Your task to perform on an android device: clear all cookies in the chrome app Image 0: 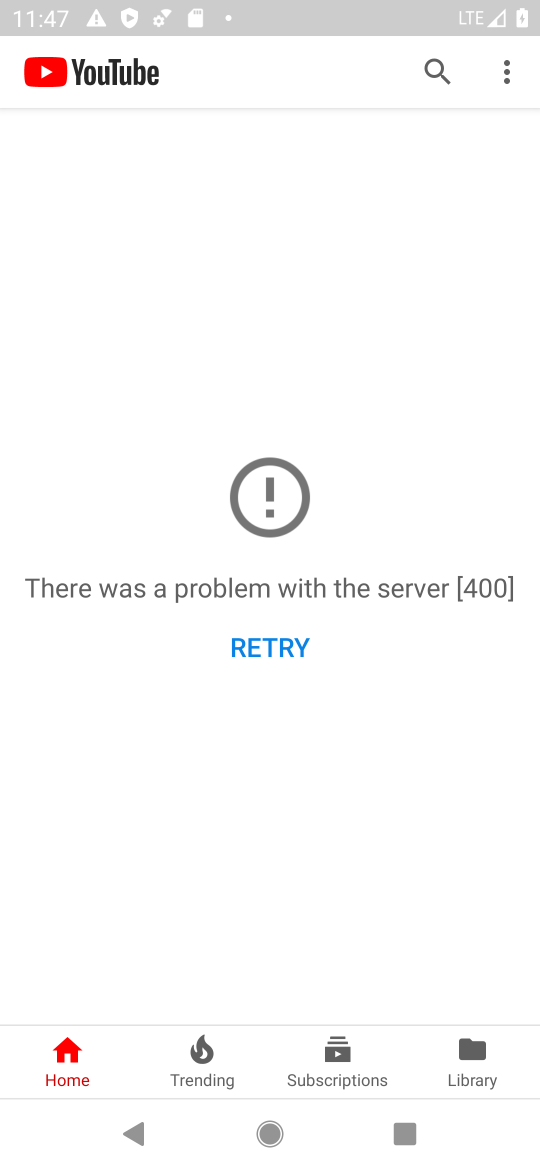
Step 0: press home button
Your task to perform on an android device: clear all cookies in the chrome app Image 1: 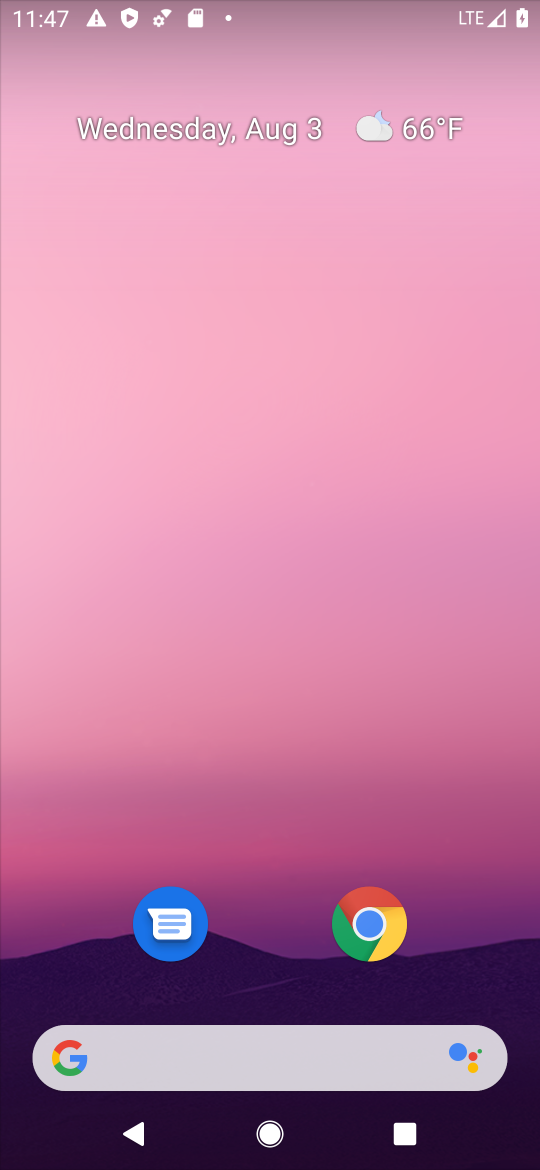
Step 1: click (377, 899)
Your task to perform on an android device: clear all cookies in the chrome app Image 2: 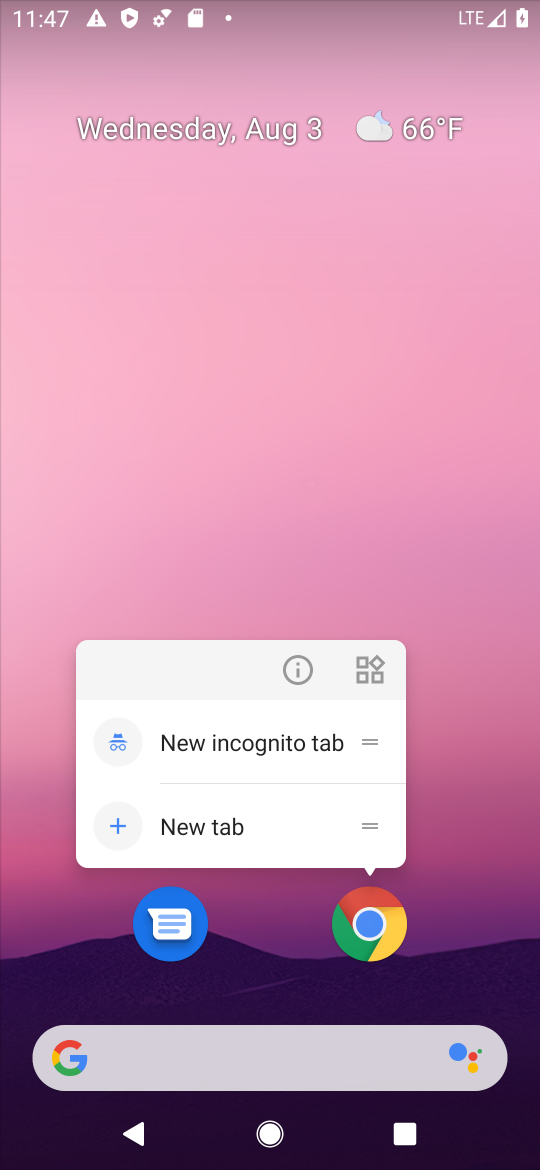
Step 2: click (366, 902)
Your task to perform on an android device: clear all cookies in the chrome app Image 3: 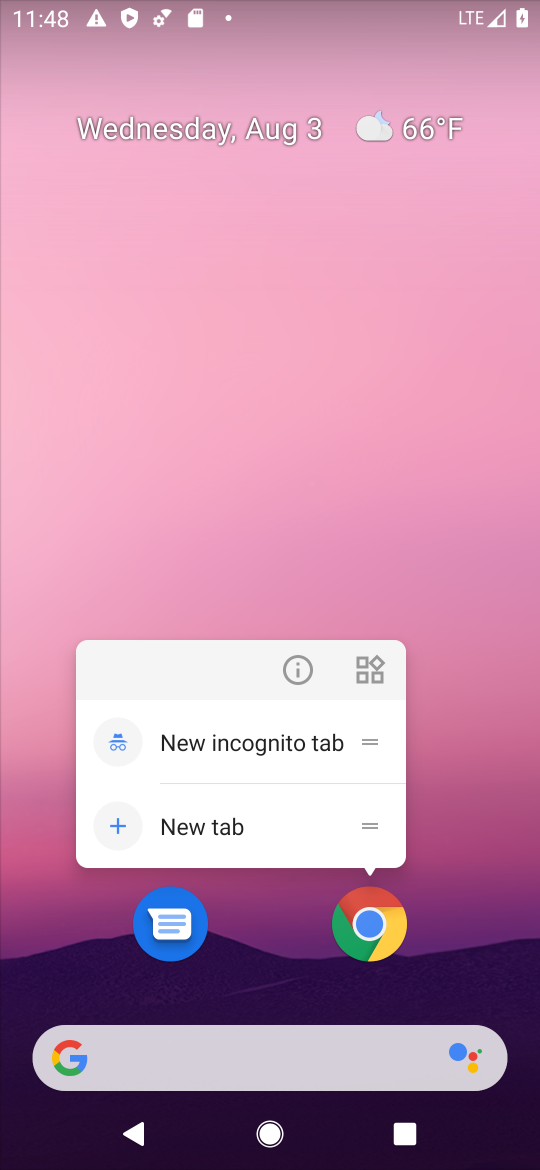
Step 3: click (361, 959)
Your task to perform on an android device: clear all cookies in the chrome app Image 4: 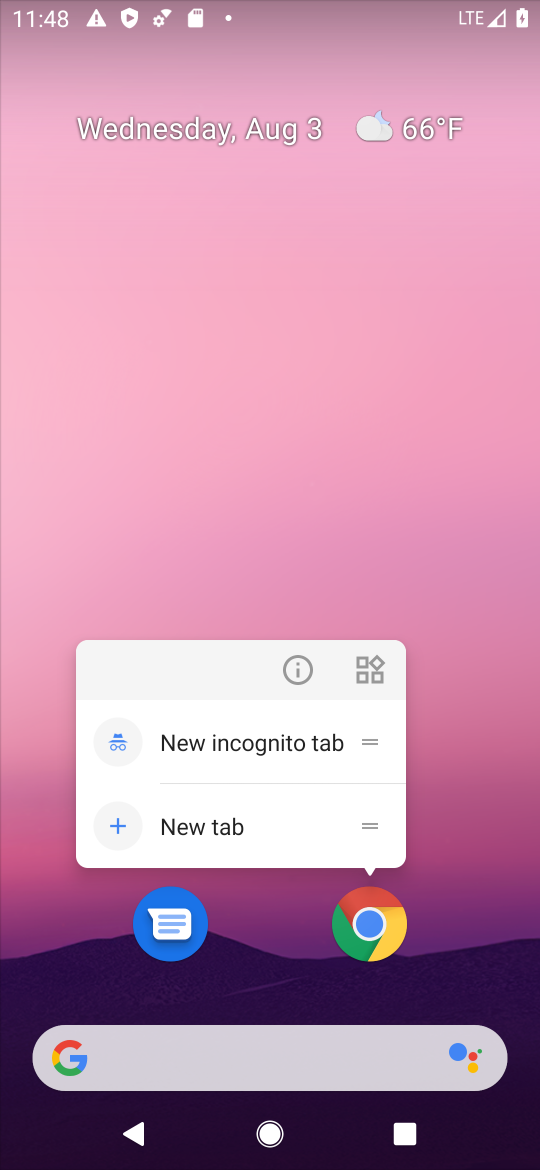
Step 4: task complete